Your task to perform on an android device: turn on showing notifications on the lock screen Image 0: 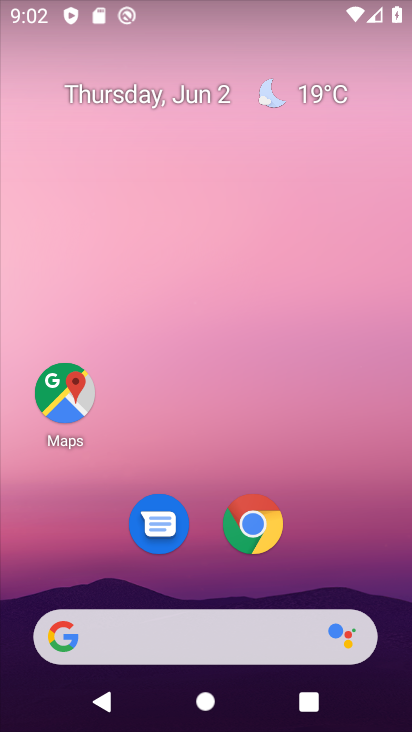
Step 0: drag from (339, 536) to (315, 22)
Your task to perform on an android device: turn on showing notifications on the lock screen Image 1: 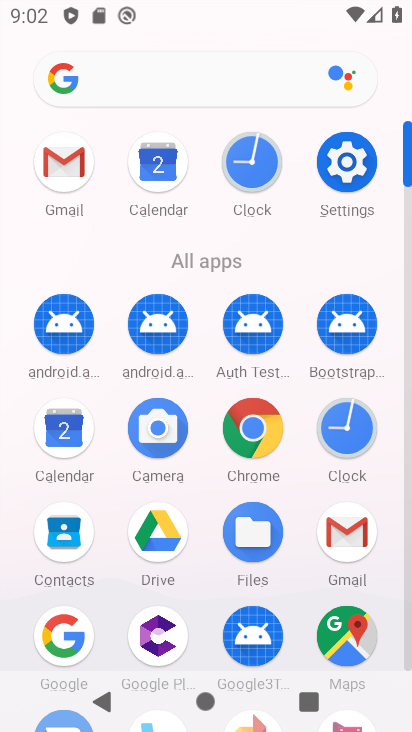
Step 1: click (345, 156)
Your task to perform on an android device: turn on showing notifications on the lock screen Image 2: 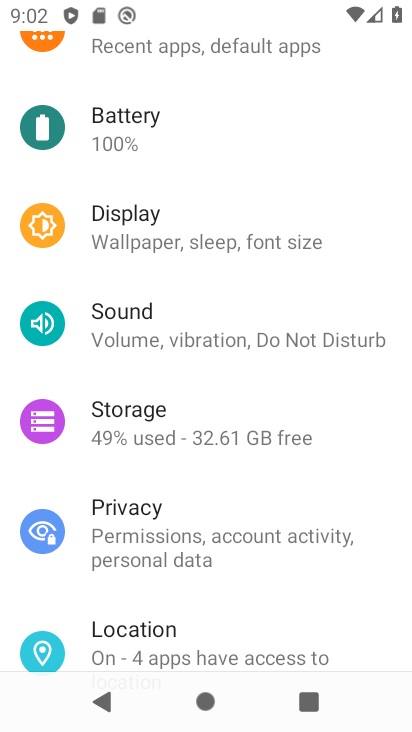
Step 2: drag from (293, 310) to (266, 526)
Your task to perform on an android device: turn on showing notifications on the lock screen Image 3: 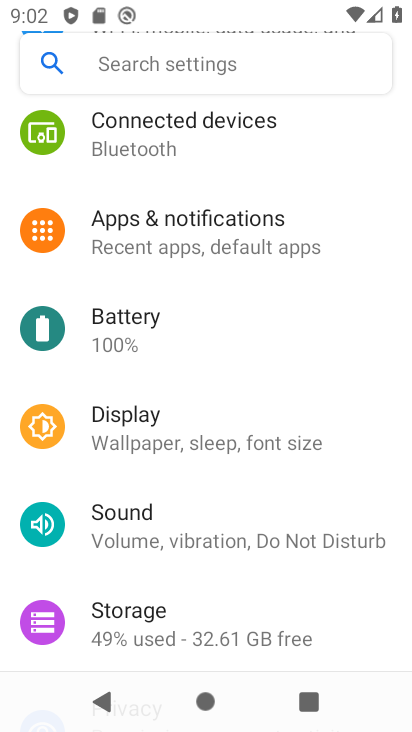
Step 3: click (261, 232)
Your task to perform on an android device: turn on showing notifications on the lock screen Image 4: 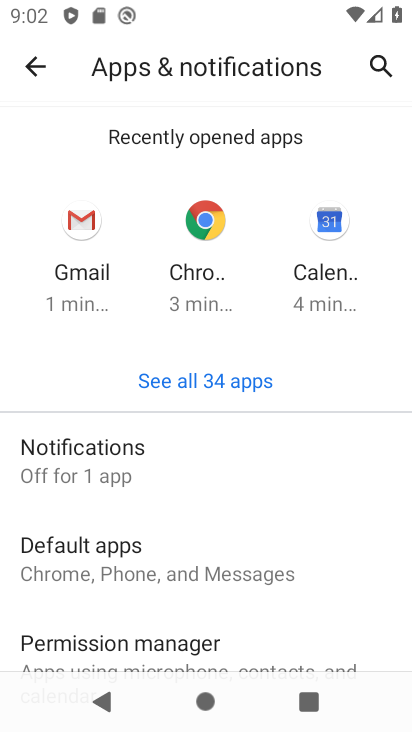
Step 4: click (193, 443)
Your task to perform on an android device: turn on showing notifications on the lock screen Image 5: 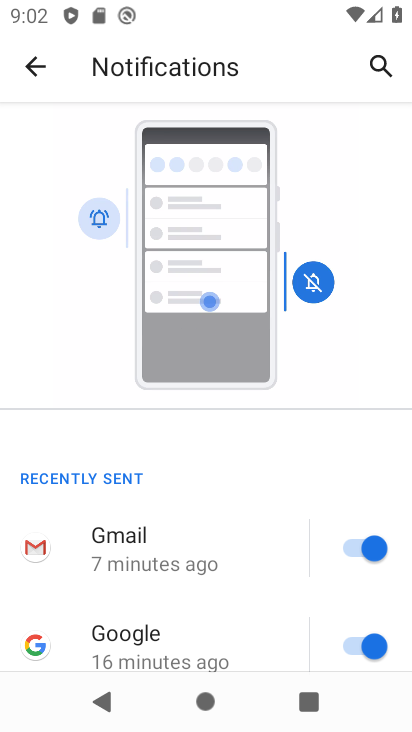
Step 5: task complete